Your task to perform on an android device: change notification settings in the gmail app Image 0: 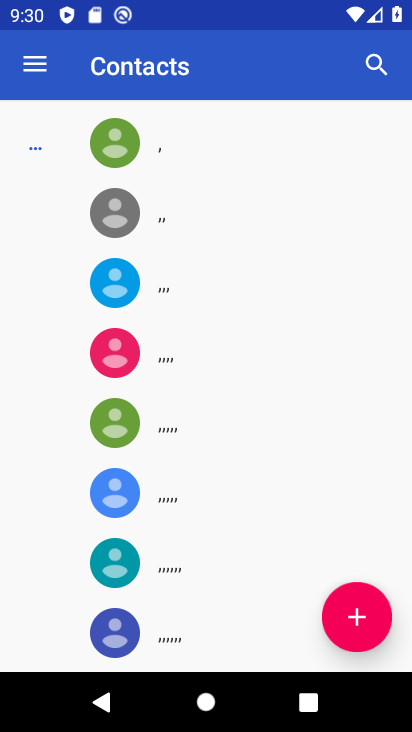
Step 0: press home button
Your task to perform on an android device: change notification settings in the gmail app Image 1: 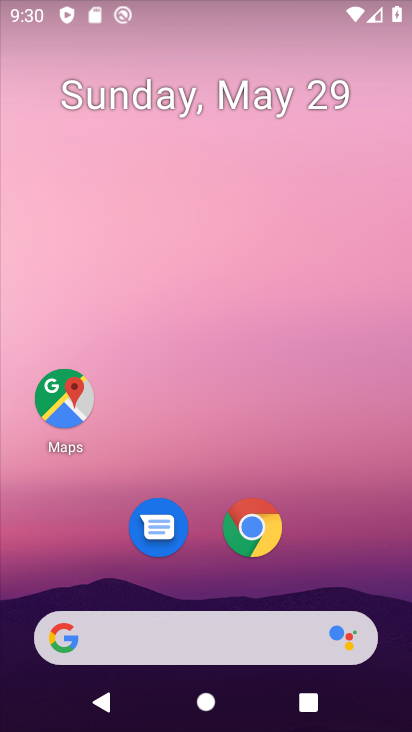
Step 1: drag from (289, 432) to (242, 145)
Your task to perform on an android device: change notification settings in the gmail app Image 2: 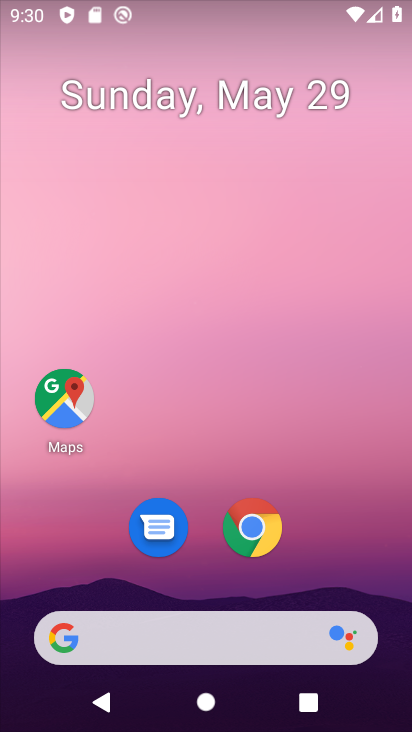
Step 2: drag from (286, 462) to (250, 0)
Your task to perform on an android device: change notification settings in the gmail app Image 3: 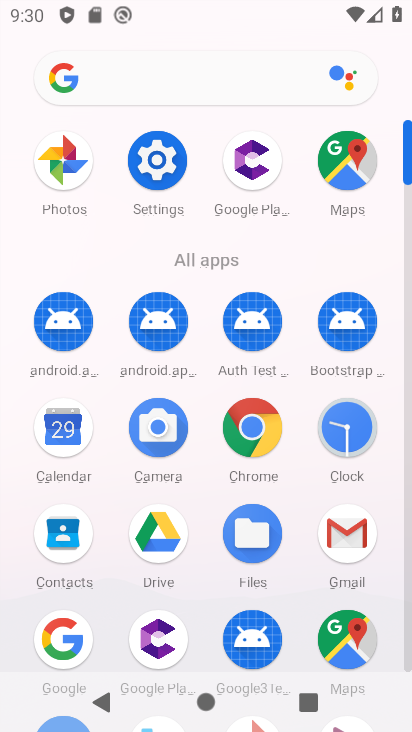
Step 3: click (348, 535)
Your task to perform on an android device: change notification settings in the gmail app Image 4: 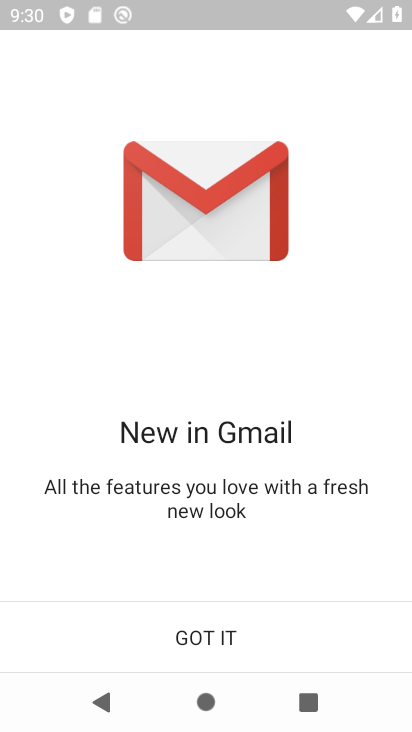
Step 4: click (198, 631)
Your task to perform on an android device: change notification settings in the gmail app Image 5: 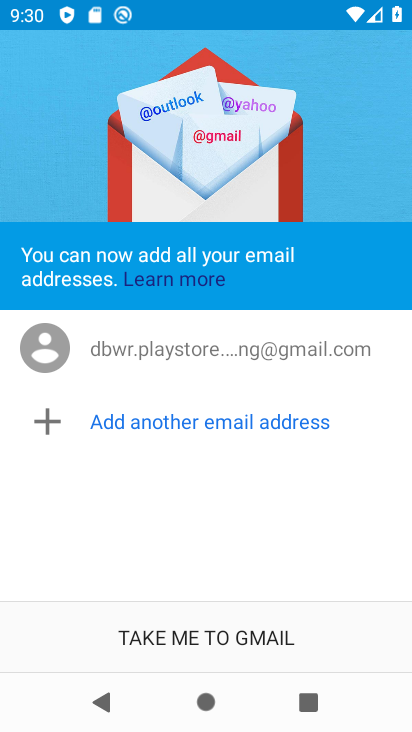
Step 5: click (194, 640)
Your task to perform on an android device: change notification settings in the gmail app Image 6: 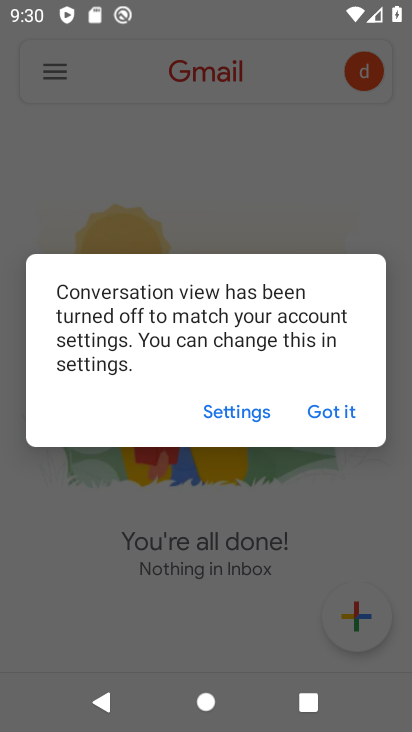
Step 6: click (337, 424)
Your task to perform on an android device: change notification settings in the gmail app Image 7: 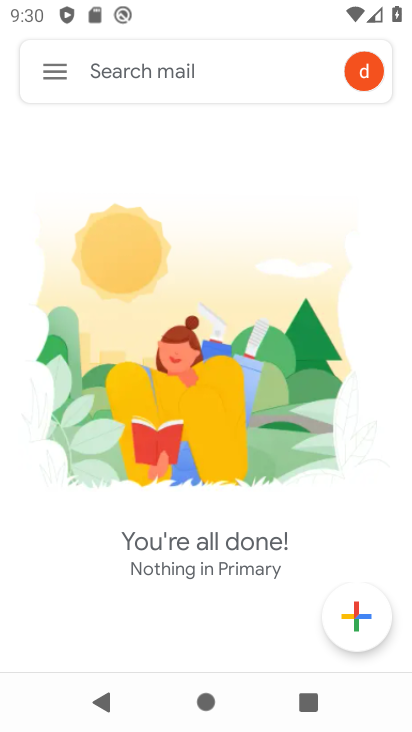
Step 7: click (48, 67)
Your task to perform on an android device: change notification settings in the gmail app Image 8: 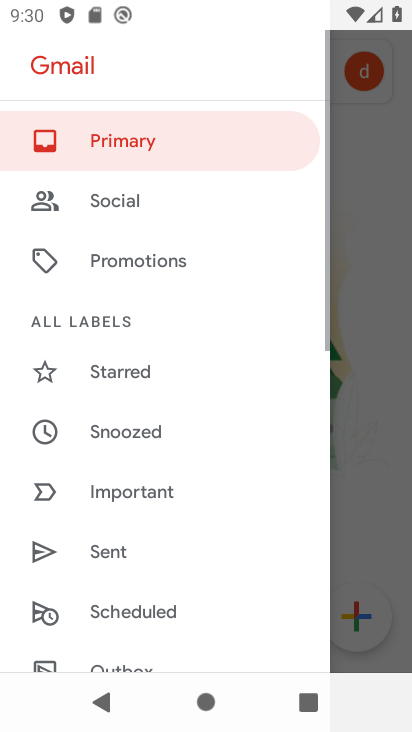
Step 8: drag from (128, 477) to (237, 70)
Your task to perform on an android device: change notification settings in the gmail app Image 9: 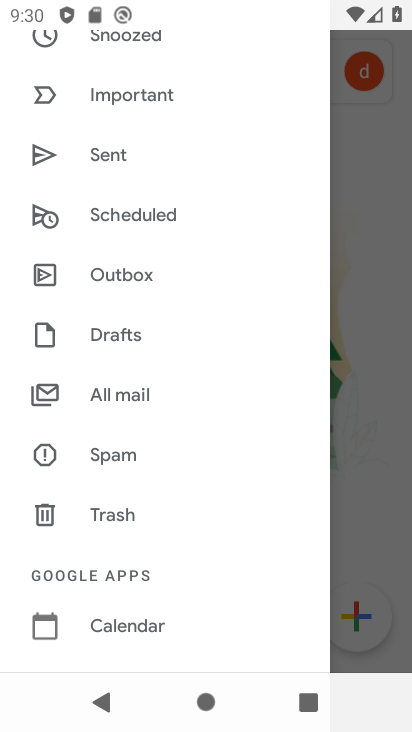
Step 9: drag from (137, 614) to (209, 205)
Your task to perform on an android device: change notification settings in the gmail app Image 10: 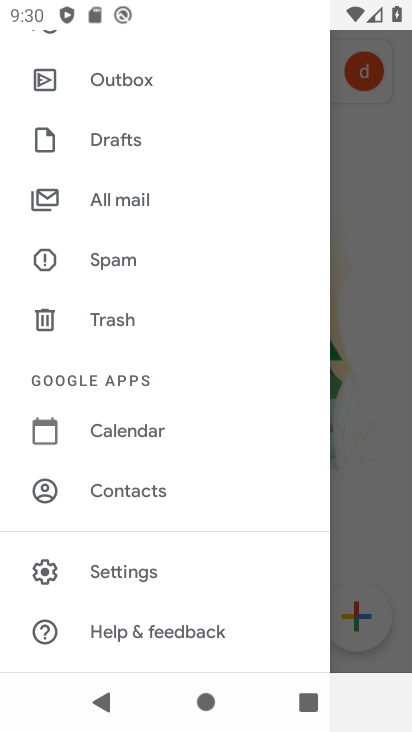
Step 10: click (131, 588)
Your task to perform on an android device: change notification settings in the gmail app Image 11: 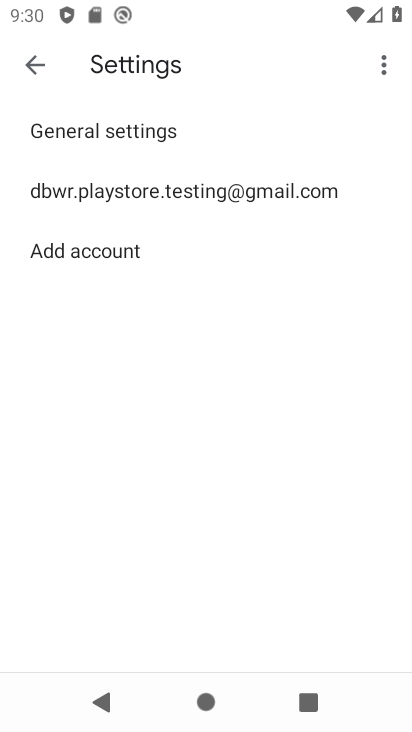
Step 11: click (178, 198)
Your task to perform on an android device: change notification settings in the gmail app Image 12: 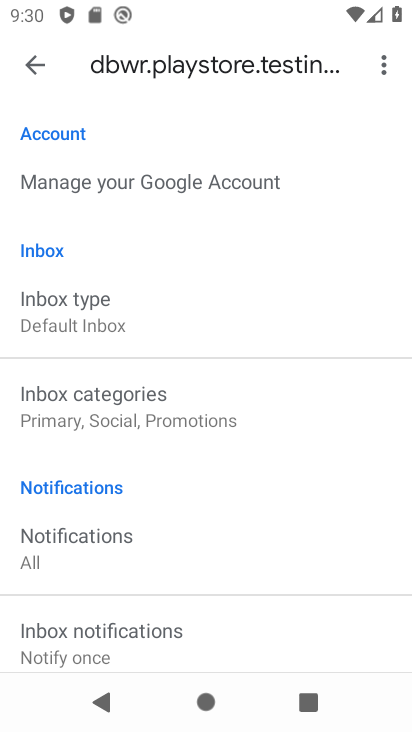
Step 12: drag from (149, 621) to (202, 197)
Your task to perform on an android device: change notification settings in the gmail app Image 13: 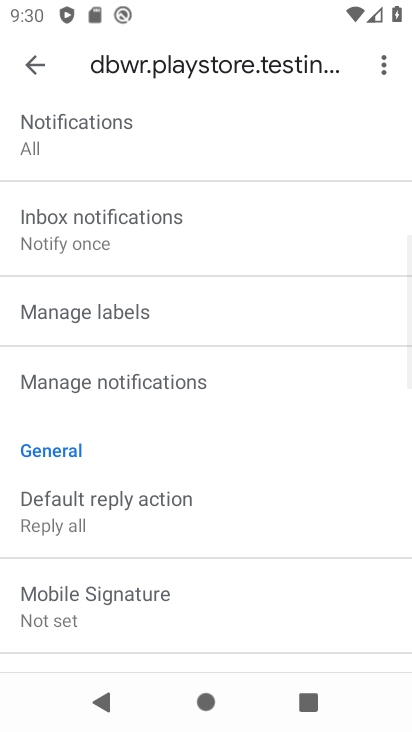
Step 13: click (146, 380)
Your task to perform on an android device: change notification settings in the gmail app Image 14: 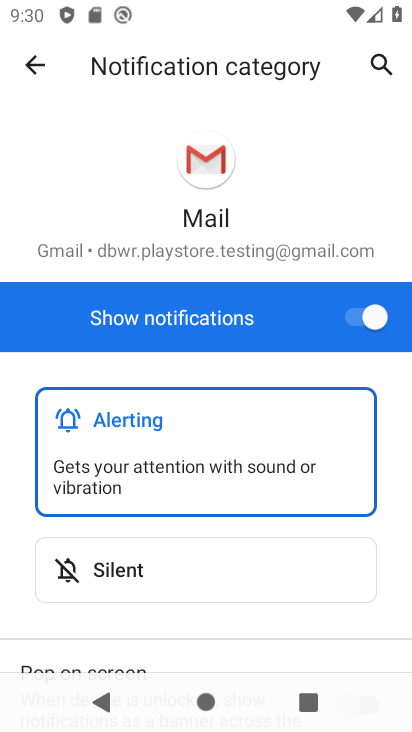
Step 14: click (371, 314)
Your task to perform on an android device: change notification settings in the gmail app Image 15: 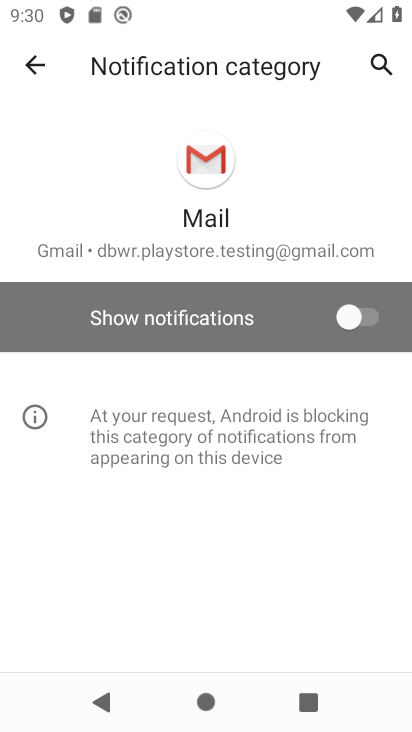
Step 15: task complete